Your task to perform on an android device: set the timer Image 0: 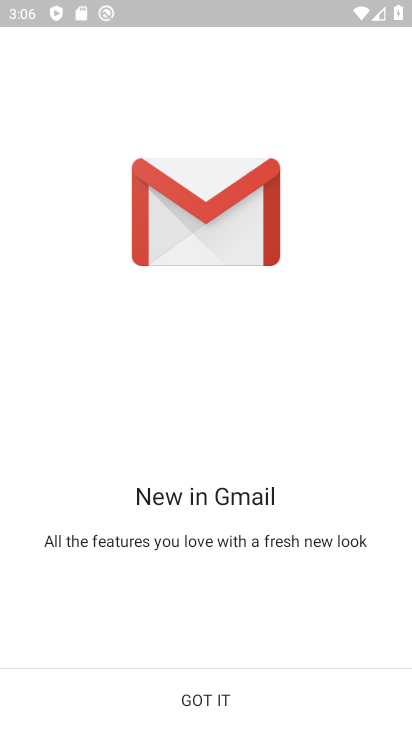
Step 0: press home button
Your task to perform on an android device: set the timer Image 1: 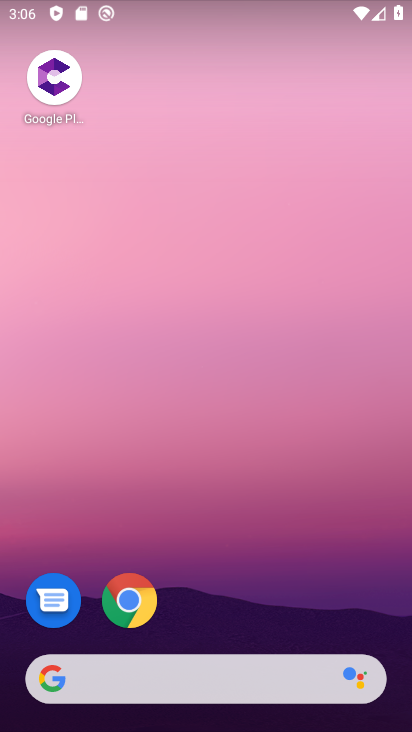
Step 1: drag from (215, 534) to (310, 190)
Your task to perform on an android device: set the timer Image 2: 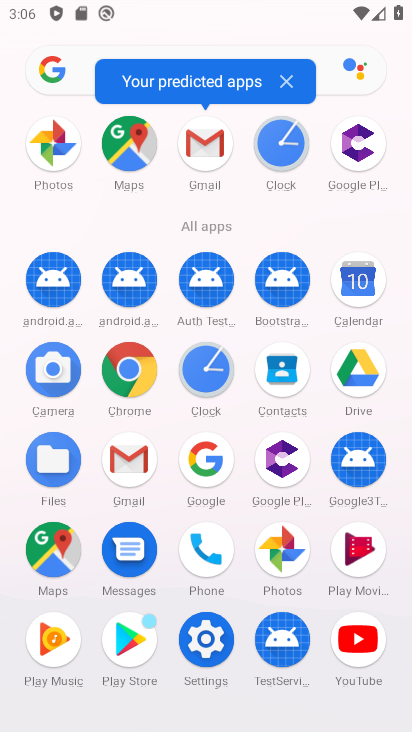
Step 2: click (279, 151)
Your task to perform on an android device: set the timer Image 3: 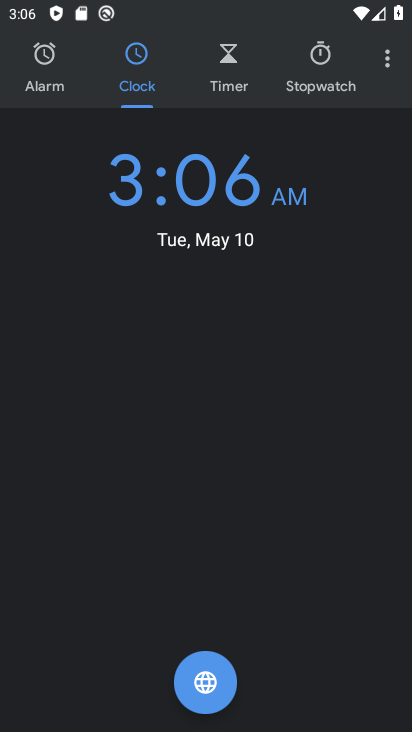
Step 3: click (218, 72)
Your task to perform on an android device: set the timer Image 4: 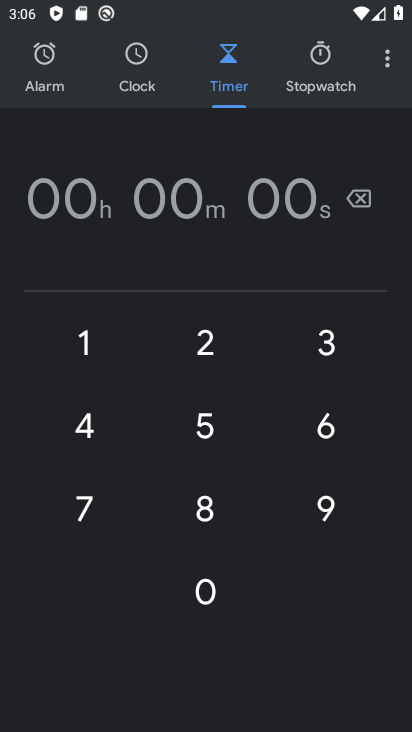
Step 4: click (70, 331)
Your task to perform on an android device: set the timer Image 5: 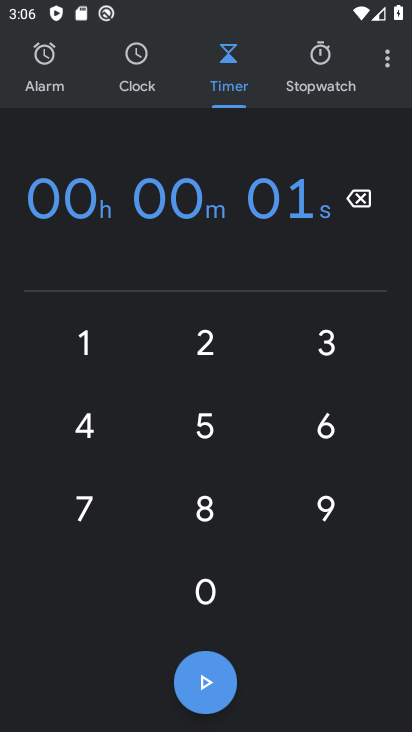
Step 5: click (211, 418)
Your task to perform on an android device: set the timer Image 6: 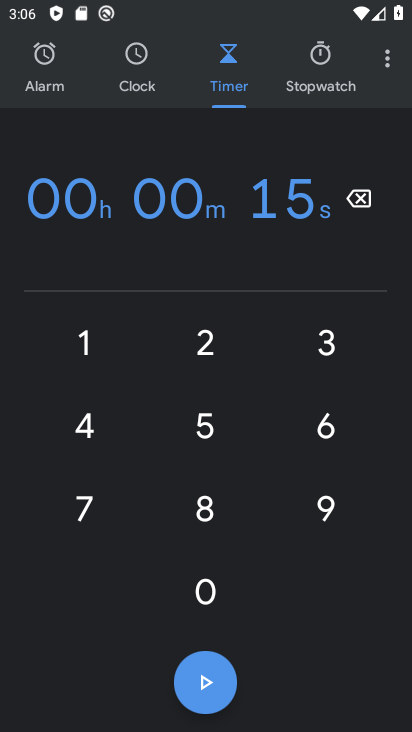
Step 6: click (179, 206)
Your task to perform on an android device: set the timer Image 7: 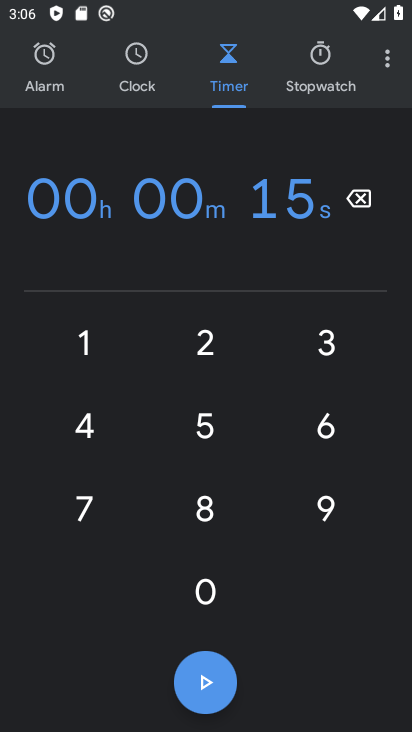
Step 7: click (179, 205)
Your task to perform on an android device: set the timer Image 8: 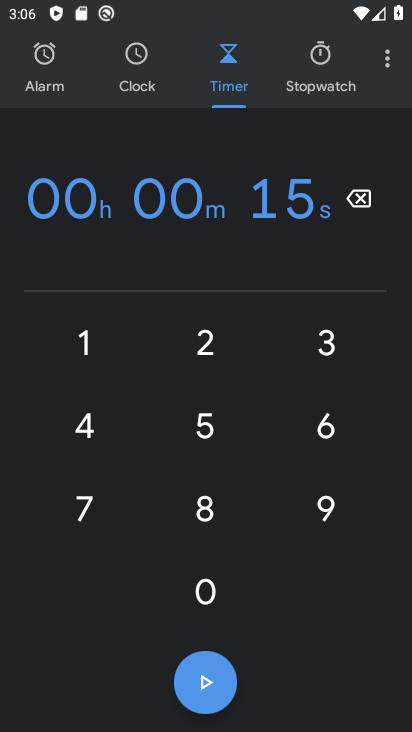
Step 8: click (65, 351)
Your task to perform on an android device: set the timer Image 9: 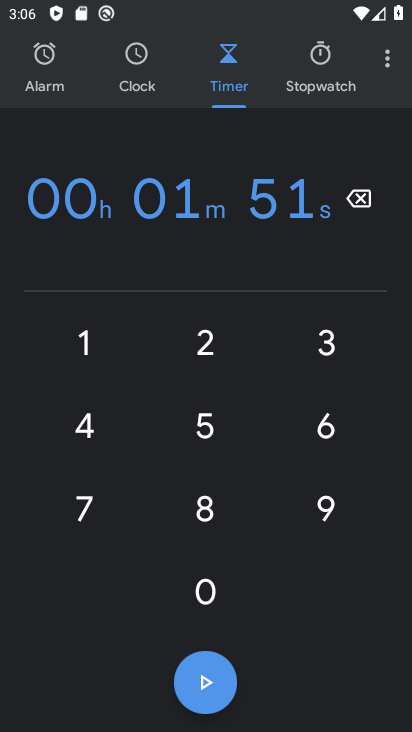
Step 9: click (208, 584)
Your task to perform on an android device: set the timer Image 10: 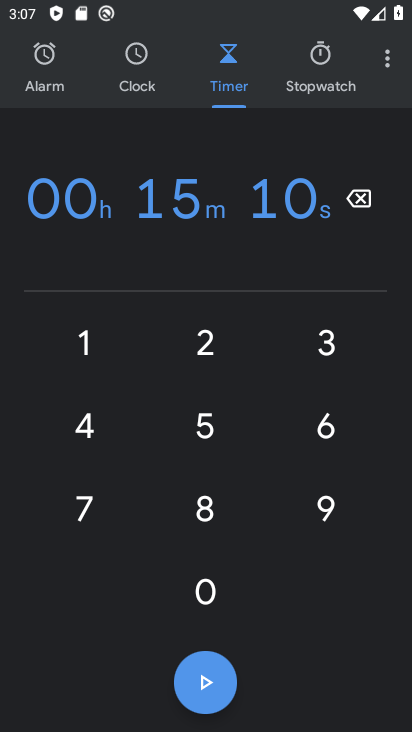
Step 10: click (72, 204)
Your task to perform on an android device: set the timer Image 11: 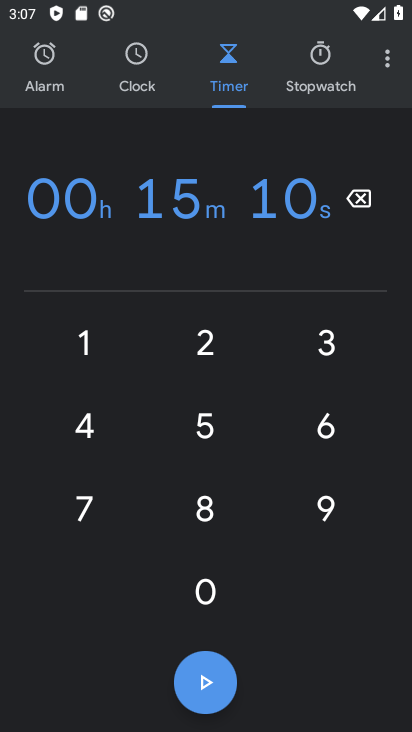
Step 11: click (201, 336)
Your task to perform on an android device: set the timer Image 12: 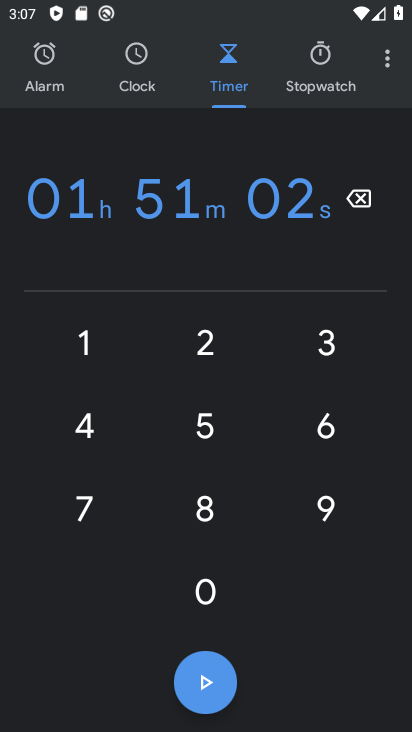
Step 12: click (199, 689)
Your task to perform on an android device: set the timer Image 13: 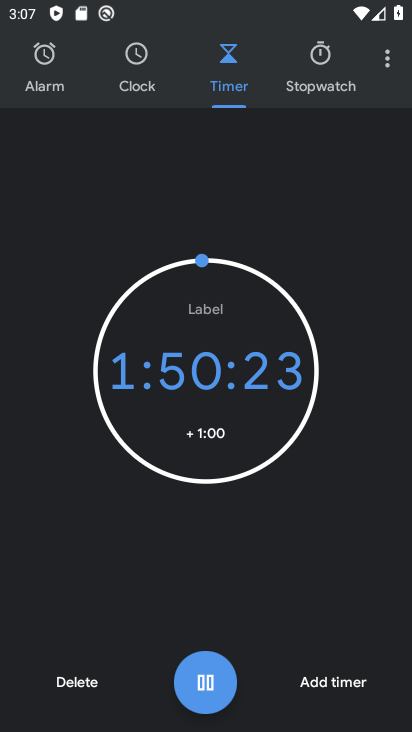
Step 13: task complete